Your task to perform on an android device: see sites visited before in the chrome app Image 0: 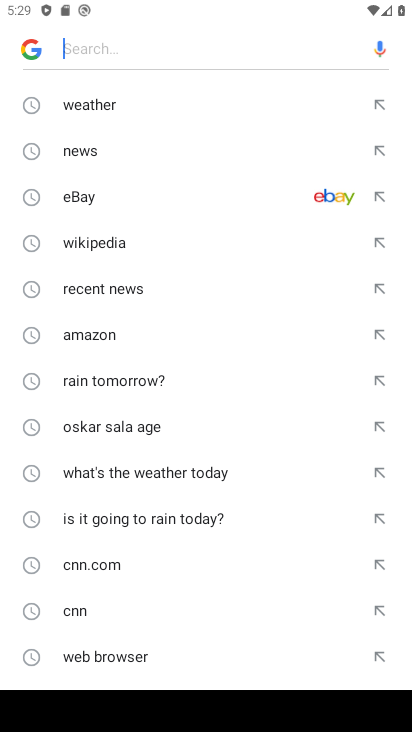
Step 0: press home button
Your task to perform on an android device: see sites visited before in the chrome app Image 1: 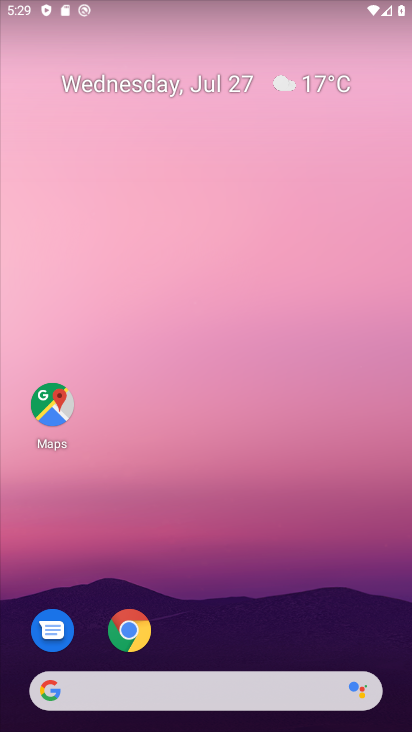
Step 1: drag from (222, 641) to (266, 6)
Your task to perform on an android device: see sites visited before in the chrome app Image 2: 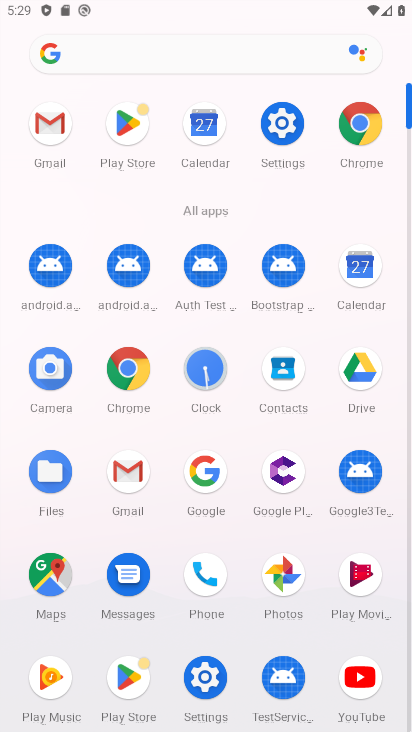
Step 2: click (365, 125)
Your task to perform on an android device: see sites visited before in the chrome app Image 3: 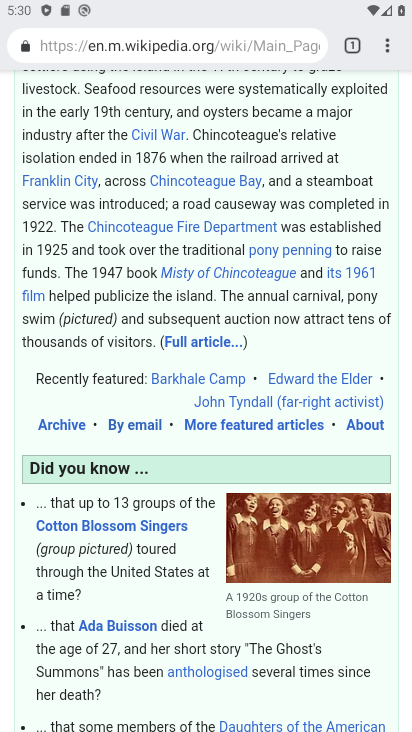
Step 3: click (383, 44)
Your task to perform on an android device: see sites visited before in the chrome app Image 4: 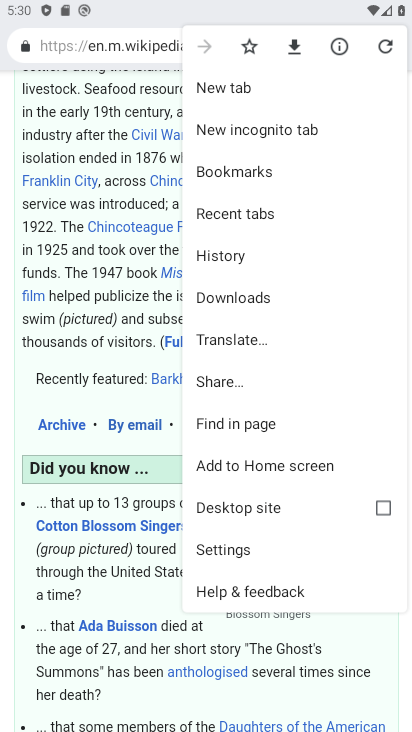
Step 4: click (249, 248)
Your task to perform on an android device: see sites visited before in the chrome app Image 5: 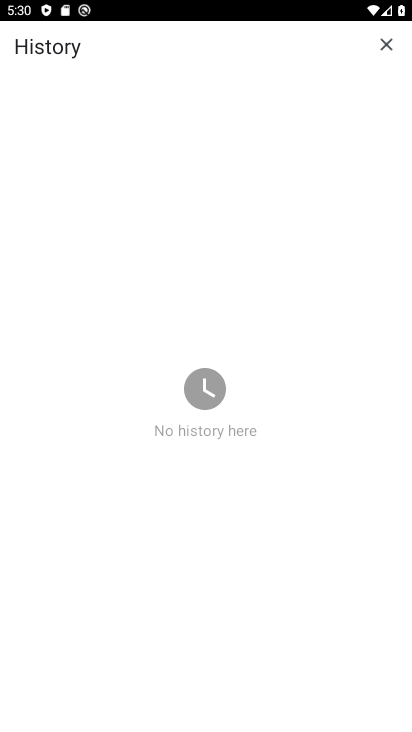
Step 5: task complete